Your task to perform on an android device: Open my contact list Image 0: 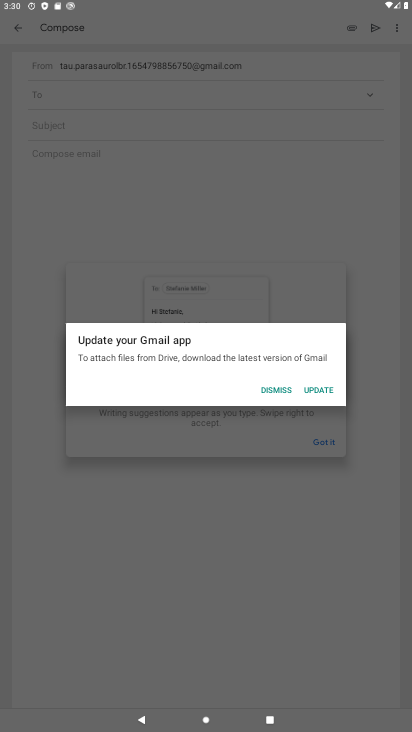
Step 0: press home button
Your task to perform on an android device: Open my contact list Image 1: 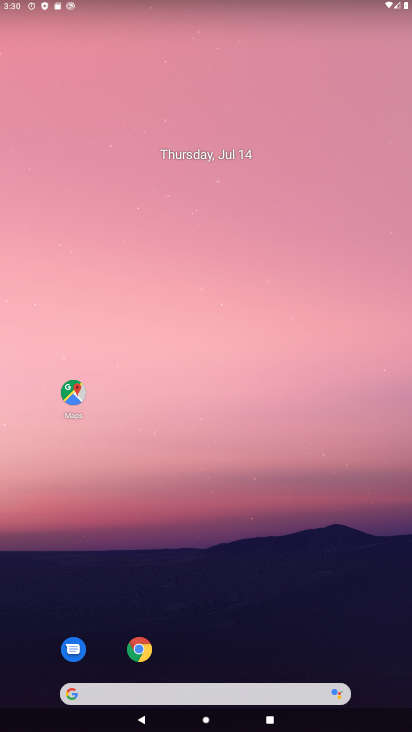
Step 1: drag from (203, 651) to (226, 46)
Your task to perform on an android device: Open my contact list Image 2: 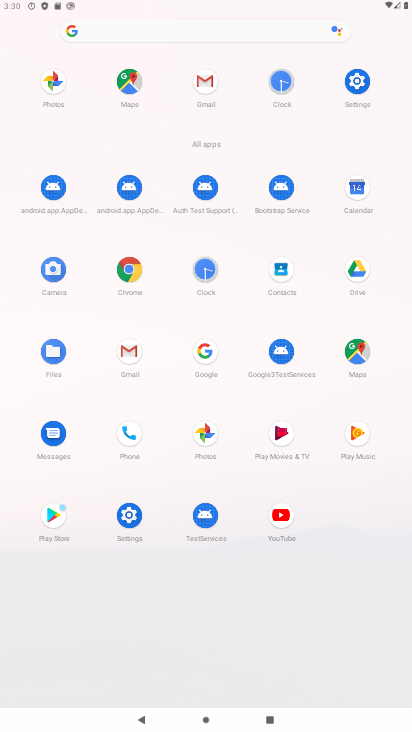
Step 2: click (288, 280)
Your task to perform on an android device: Open my contact list Image 3: 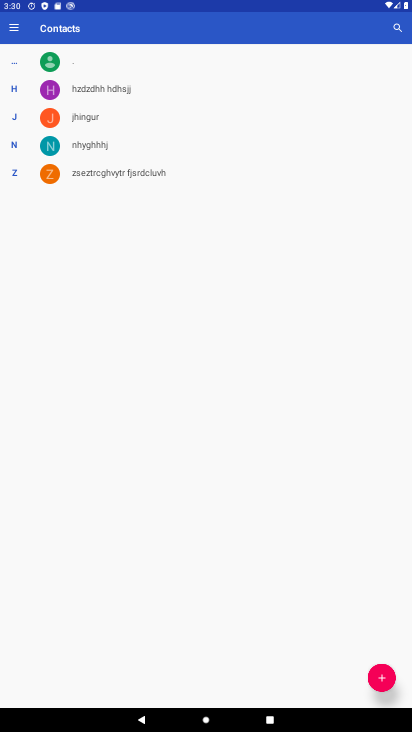
Step 3: task complete